Your task to perform on an android device: open app "Truecaller" (install if not already installed), go to login, and select forgot password Image 0: 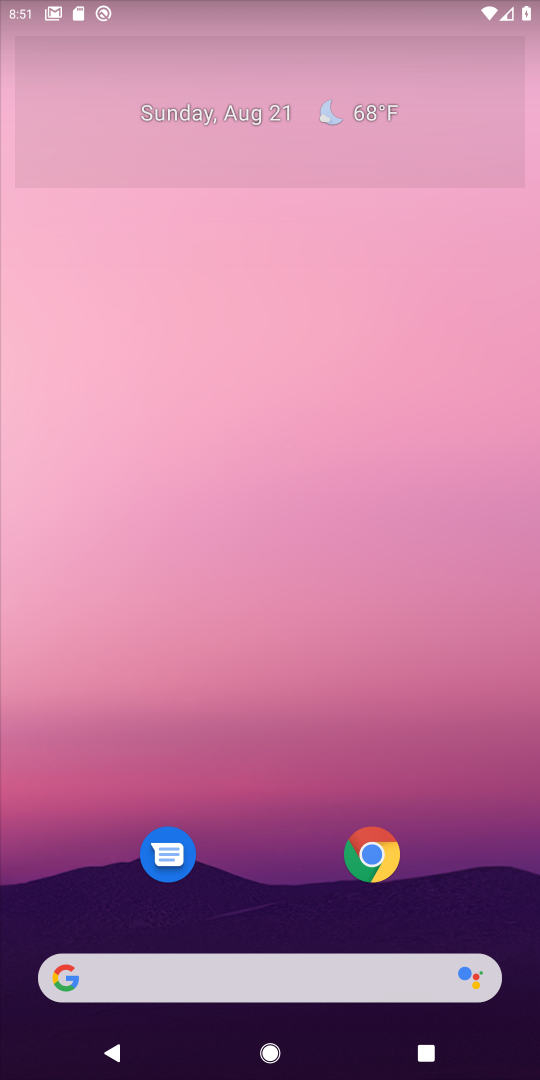
Step 0: drag from (296, 739) to (442, 4)
Your task to perform on an android device: open app "Truecaller" (install if not already installed), go to login, and select forgot password Image 1: 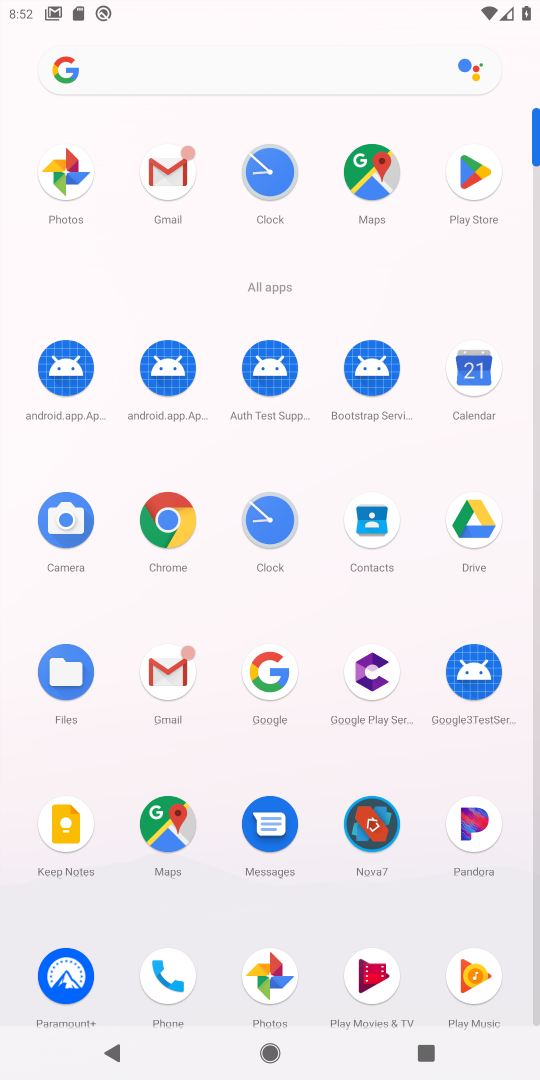
Step 1: click (494, 181)
Your task to perform on an android device: open app "Truecaller" (install if not already installed), go to login, and select forgot password Image 2: 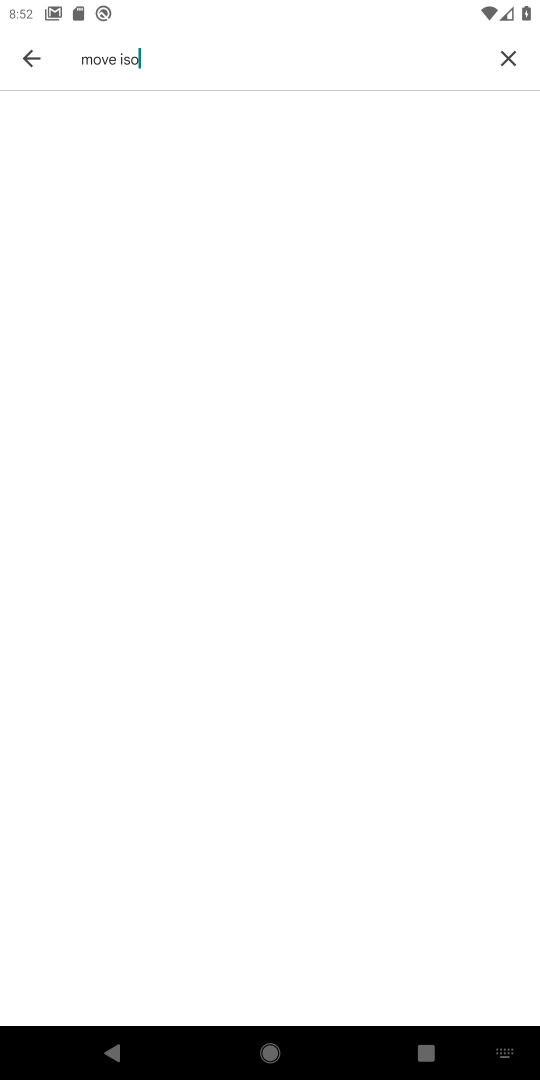
Step 2: click (521, 57)
Your task to perform on an android device: open app "Truecaller" (install if not already installed), go to login, and select forgot password Image 3: 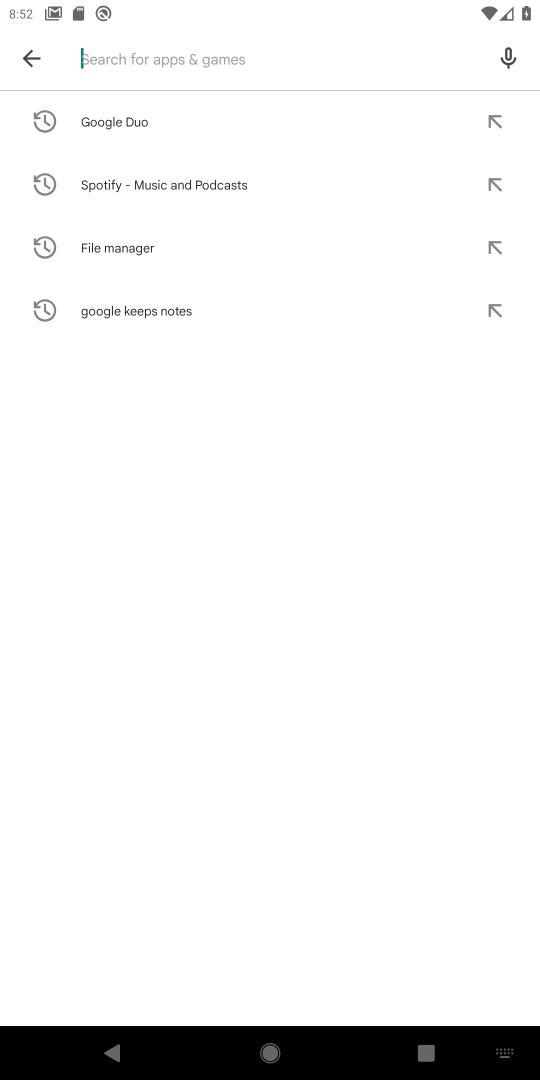
Step 3: type "truecaller"
Your task to perform on an android device: open app "Truecaller" (install if not already installed), go to login, and select forgot password Image 4: 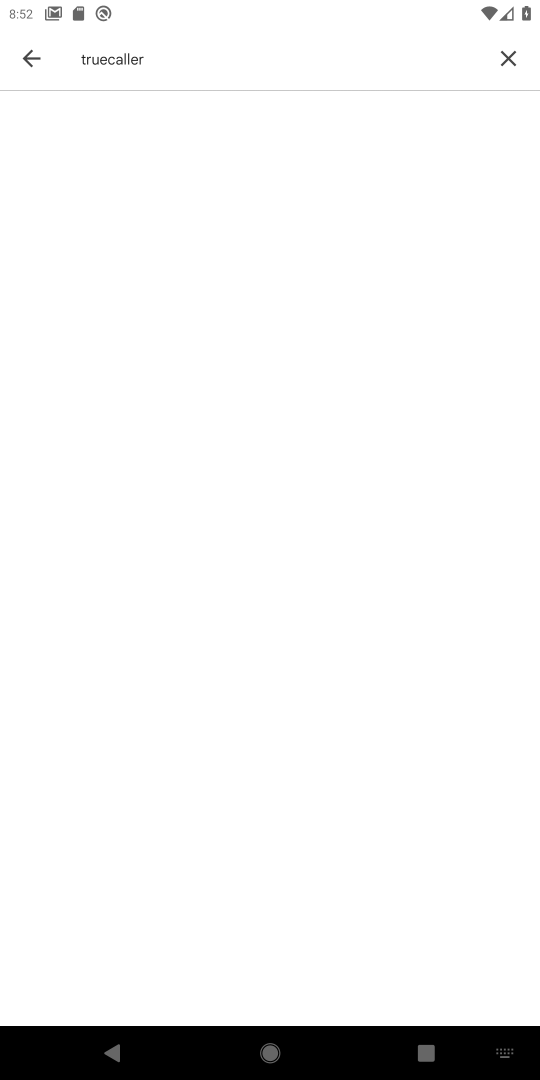
Step 4: task complete